Your task to perform on an android device: toggle pop-ups in chrome Image 0: 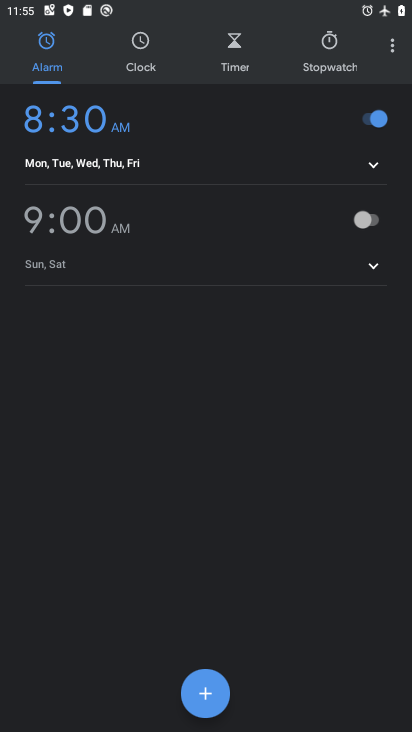
Step 0: press home button
Your task to perform on an android device: toggle pop-ups in chrome Image 1: 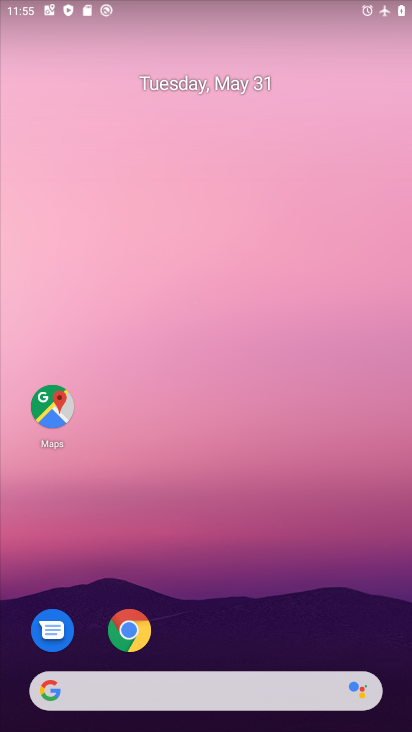
Step 1: click (130, 644)
Your task to perform on an android device: toggle pop-ups in chrome Image 2: 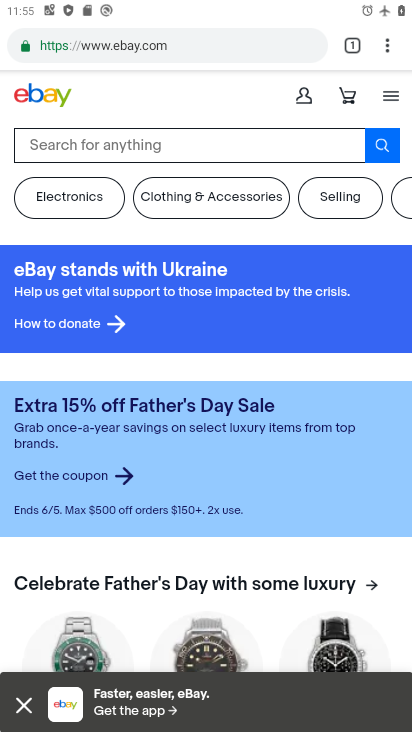
Step 2: click (391, 49)
Your task to perform on an android device: toggle pop-ups in chrome Image 3: 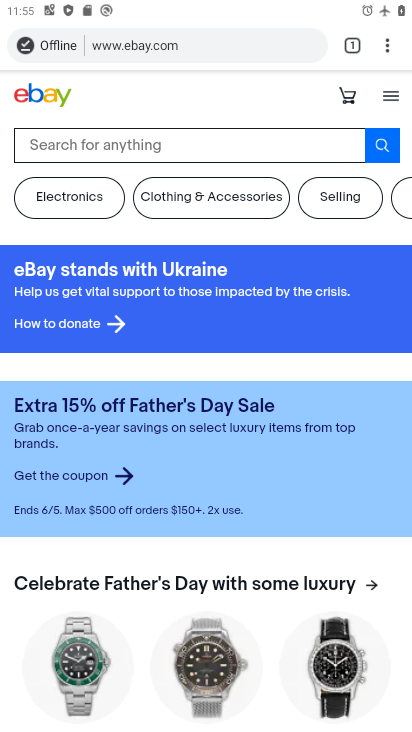
Step 3: click (387, 49)
Your task to perform on an android device: toggle pop-ups in chrome Image 4: 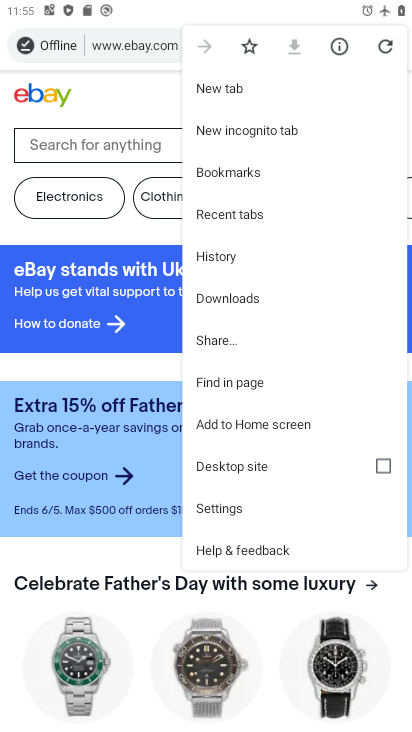
Step 4: click (244, 513)
Your task to perform on an android device: toggle pop-ups in chrome Image 5: 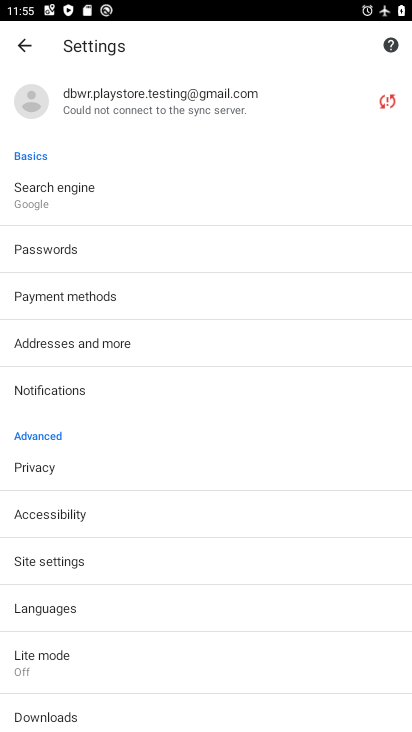
Step 5: click (65, 563)
Your task to perform on an android device: toggle pop-ups in chrome Image 6: 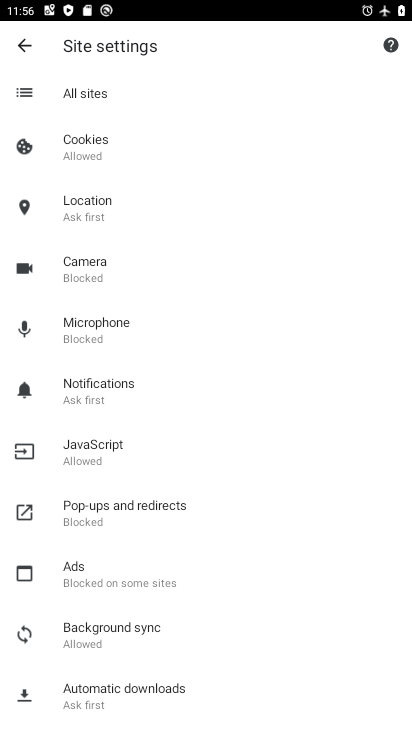
Step 6: click (120, 524)
Your task to perform on an android device: toggle pop-ups in chrome Image 7: 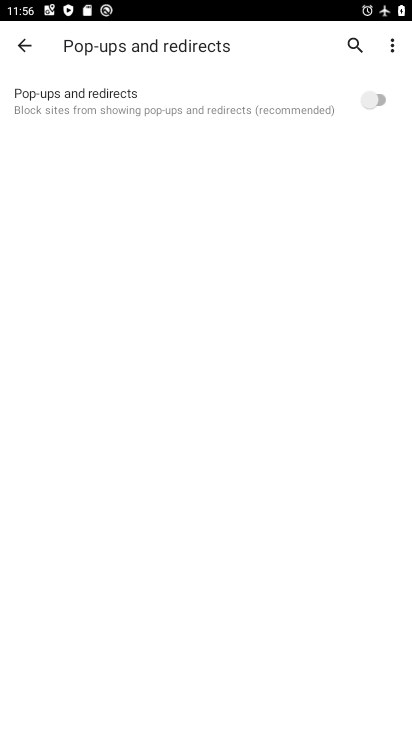
Step 7: click (372, 102)
Your task to perform on an android device: toggle pop-ups in chrome Image 8: 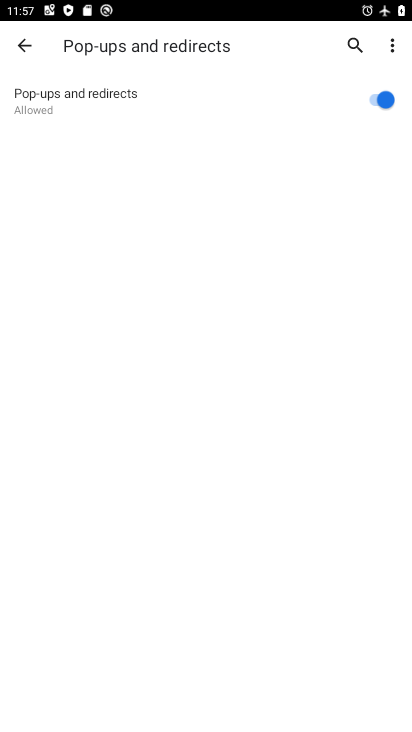
Step 8: task complete